Your task to perform on an android device: Go to Wikipedia Image 0: 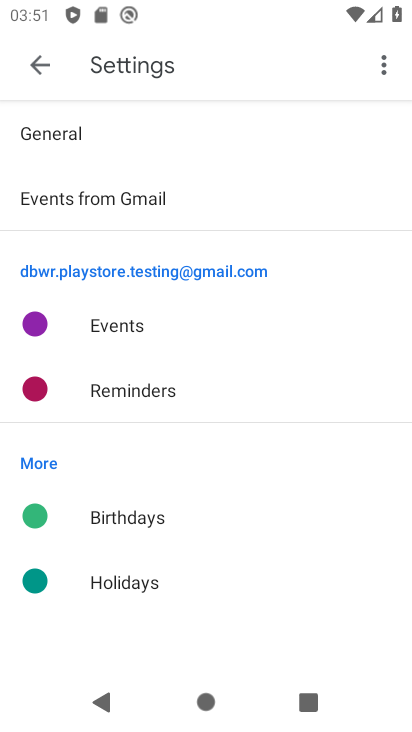
Step 0: press back button
Your task to perform on an android device: Go to Wikipedia Image 1: 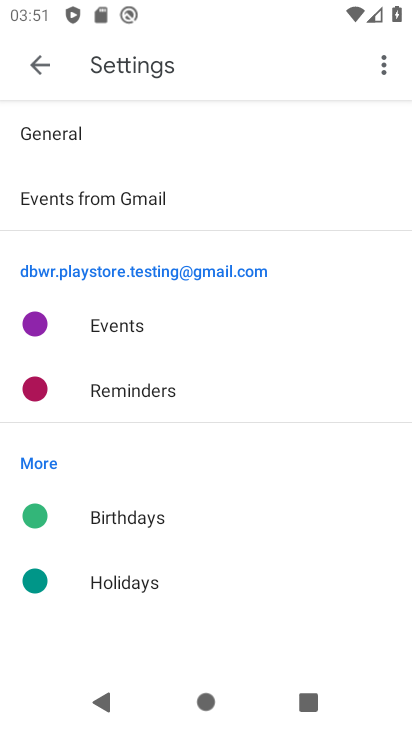
Step 1: press back button
Your task to perform on an android device: Go to Wikipedia Image 2: 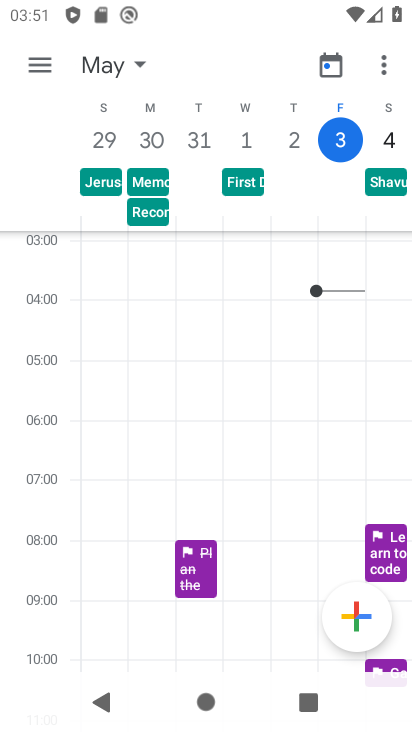
Step 2: press back button
Your task to perform on an android device: Go to Wikipedia Image 3: 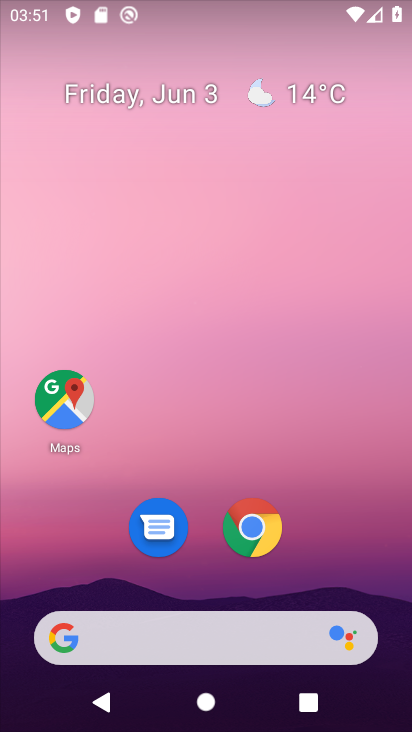
Step 3: click (254, 526)
Your task to perform on an android device: Go to Wikipedia Image 4: 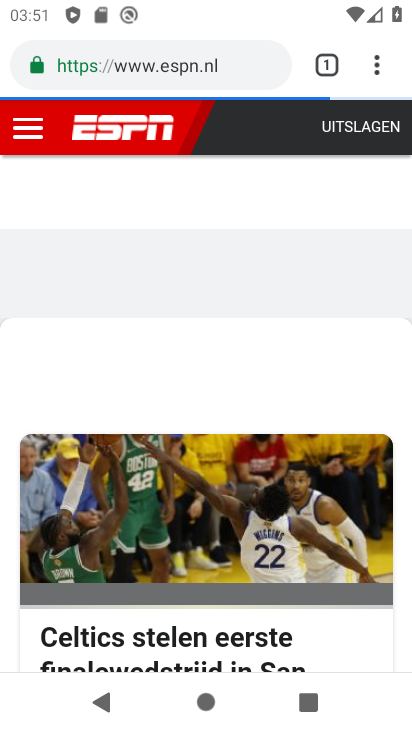
Step 4: click (232, 64)
Your task to perform on an android device: Go to Wikipedia Image 5: 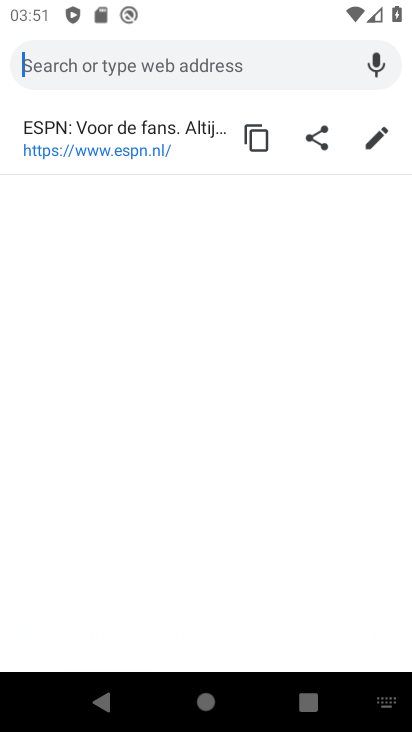
Step 5: type "Wikipedia"
Your task to perform on an android device: Go to Wikipedia Image 6: 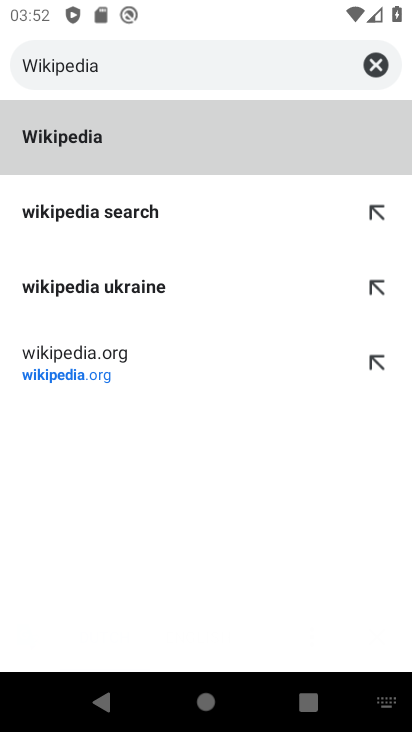
Step 6: click (116, 142)
Your task to perform on an android device: Go to Wikipedia Image 7: 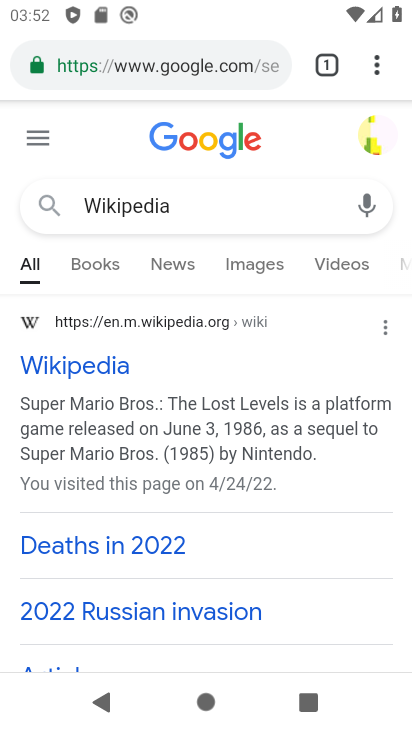
Step 7: click (88, 366)
Your task to perform on an android device: Go to Wikipedia Image 8: 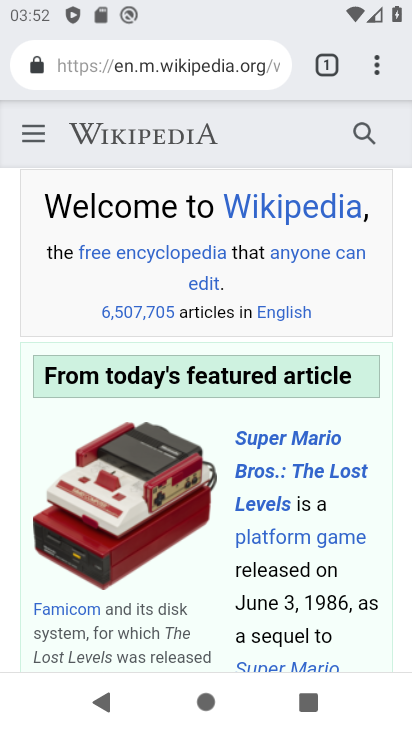
Step 8: task complete